Your task to perform on an android device: remove spam from my inbox in the gmail app Image 0: 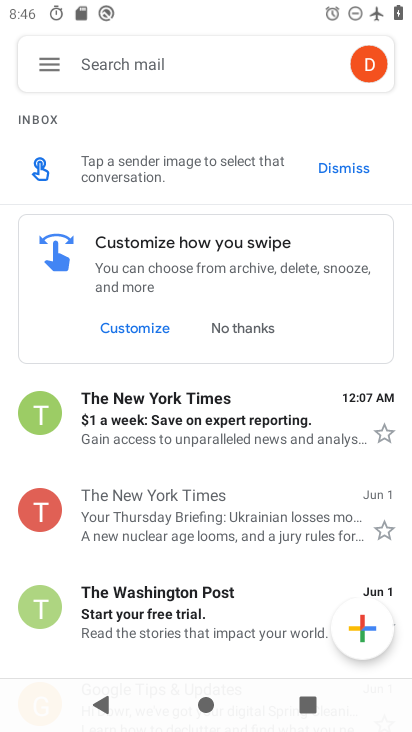
Step 0: press home button
Your task to perform on an android device: remove spam from my inbox in the gmail app Image 1: 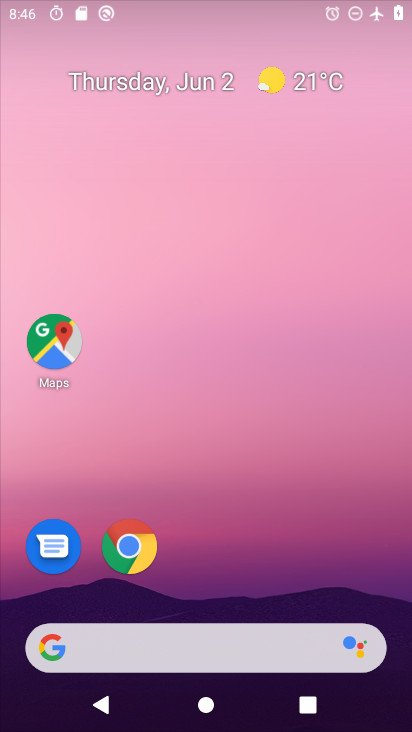
Step 1: drag from (337, 556) to (339, 101)
Your task to perform on an android device: remove spam from my inbox in the gmail app Image 2: 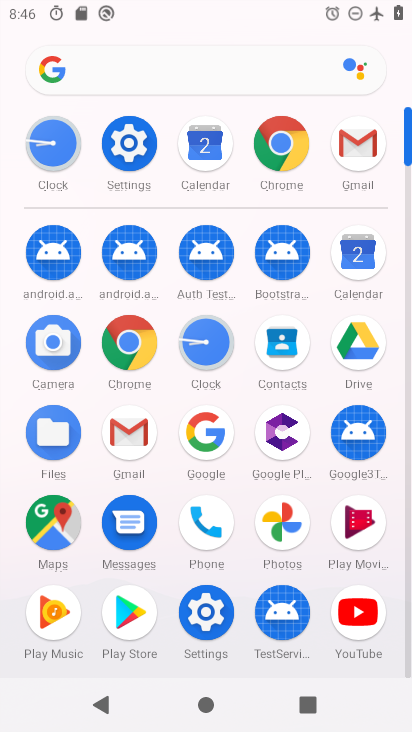
Step 2: click (149, 431)
Your task to perform on an android device: remove spam from my inbox in the gmail app Image 3: 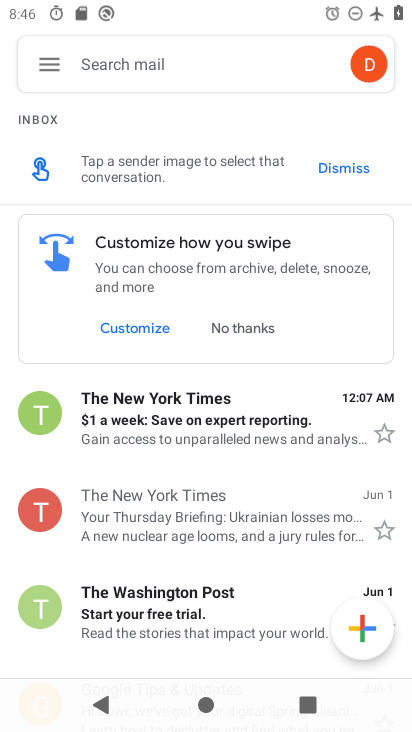
Step 3: drag from (258, 589) to (271, 361)
Your task to perform on an android device: remove spam from my inbox in the gmail app Image 4: 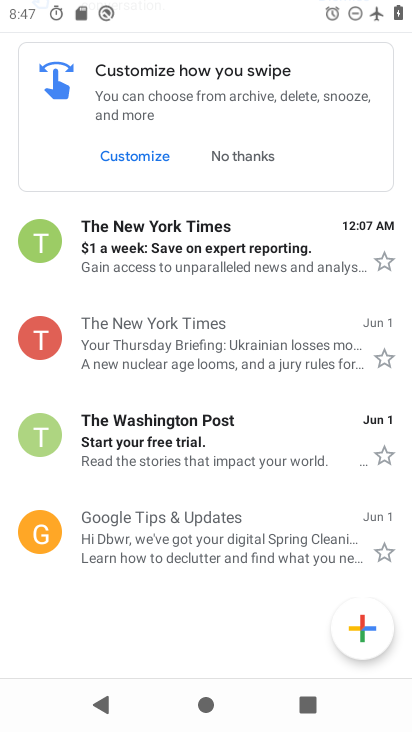
Step 4: drag from (78, 195) to (78, 561)
Your task to perform on an android device: remove spam from my inbox in the gmail app Image 5: 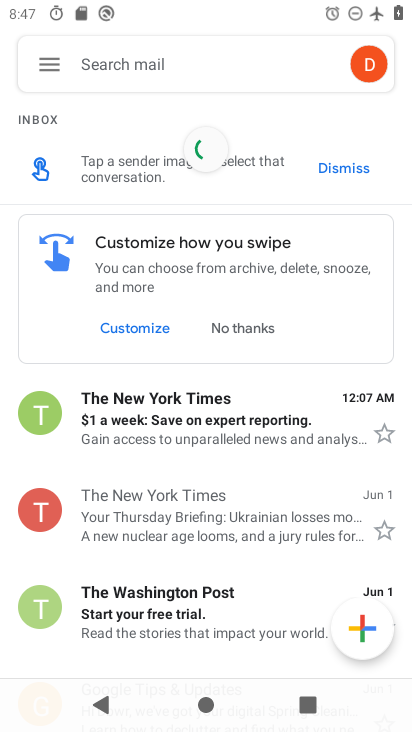
Step 5: click (55, 67)
Your task to perform on an android device: remove spam from my inbox in the gmail app Image 6: 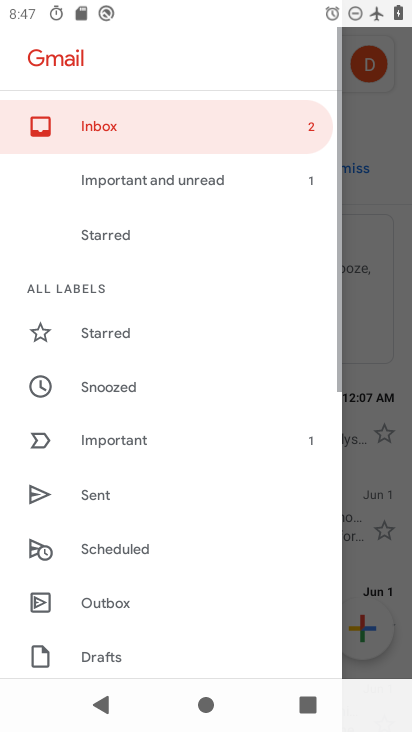
Step 6: drag from (192, 615) to (204, 229)
Your task to perform on an android device: remove spam from my inbox in the gmail app Image 7: 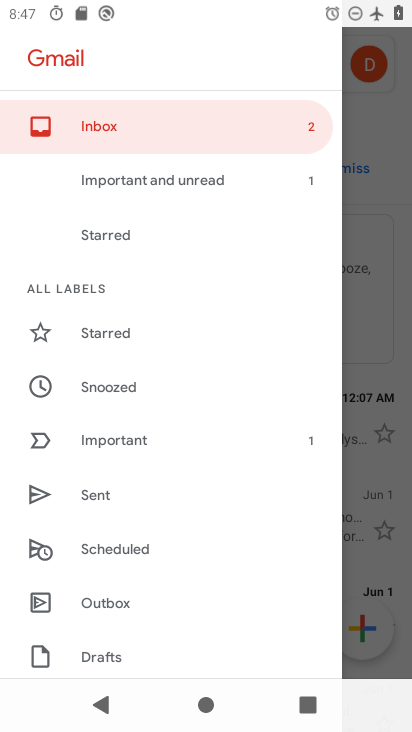
Step 7: drag from (144, 641) to (211, 277)
Your task to perform on an android device: remove spam from my inbox in the gmail app Image 8: 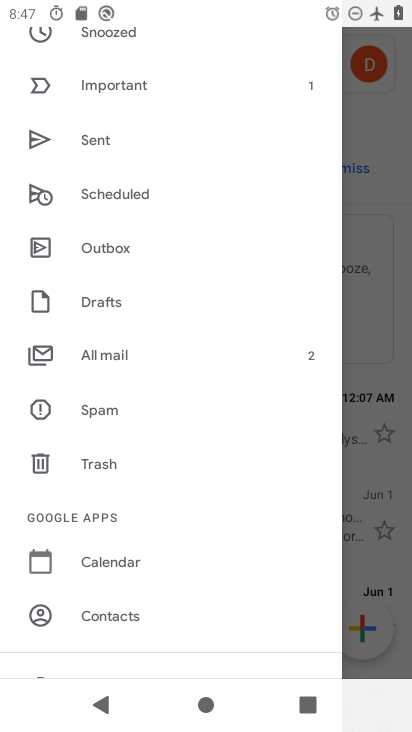
Step 8: click (201, 275)
Your task to perform on an android device: remove spam from my inbox in the gmail app Image 9: 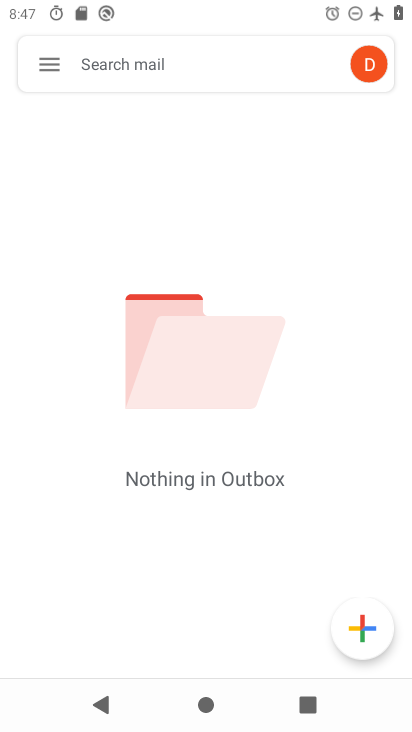
Step 9: click (51, 74)
Your task to perform on an android device: remove spam from my inbox in the gmail app Image 10: 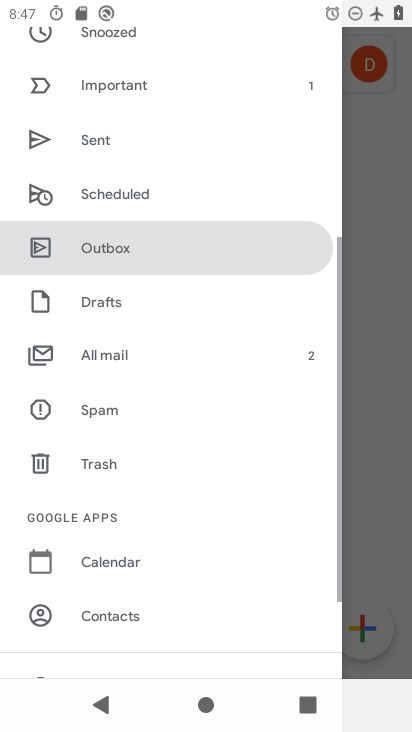
Step 10: drag from (162, 652) to (166, 308)
Your task to perform on an android device: remove spam from my inbox in the gmail app Image 11: 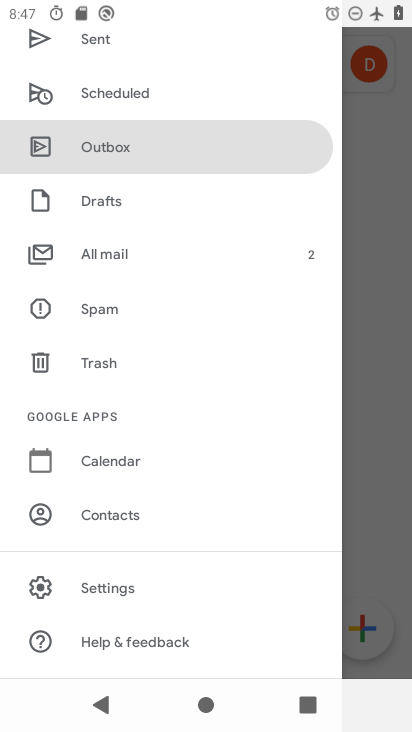
Step 11: click (166, 301)
Your task to perform on an android device: remove spam from my inbox in the gmail app Image 12: 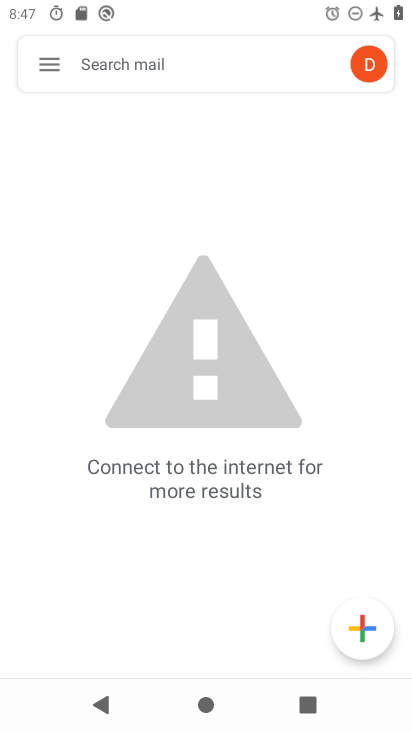
Step 12: task complete